Your task to perform on an android device: open chrome and create a bookmark for the current page Image 0: 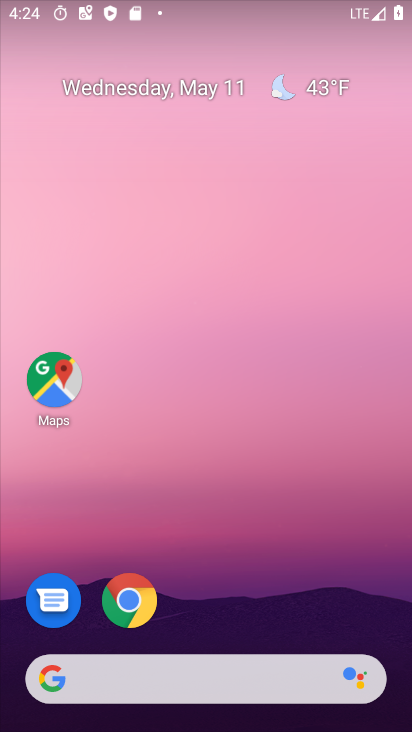
Step 0: click (134, 605)
Your task to perform on an android device: open chrome and create a bookmark for the current page Image 1: 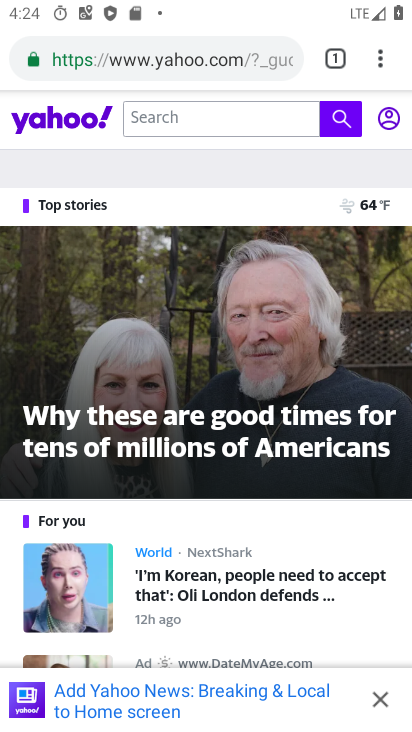
Step 1: click (383, 57)
Your task to perform on an android device: open chrome and create a bookmark for the current page Image 2: 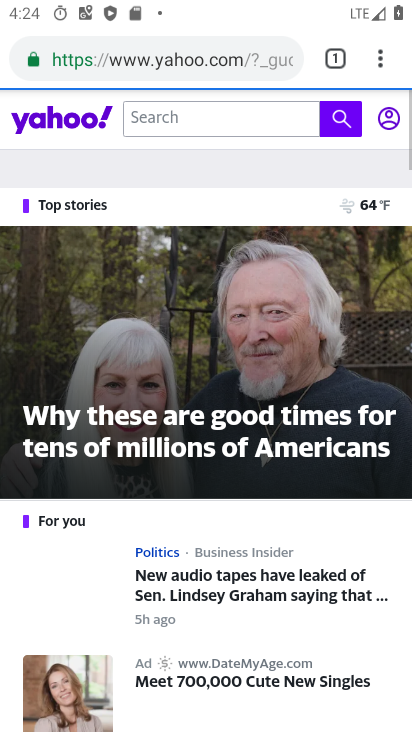
Step 2: click (383, 65)
Your task to perform on an android device: open chrome and create a bookmark for the current page Image 3: 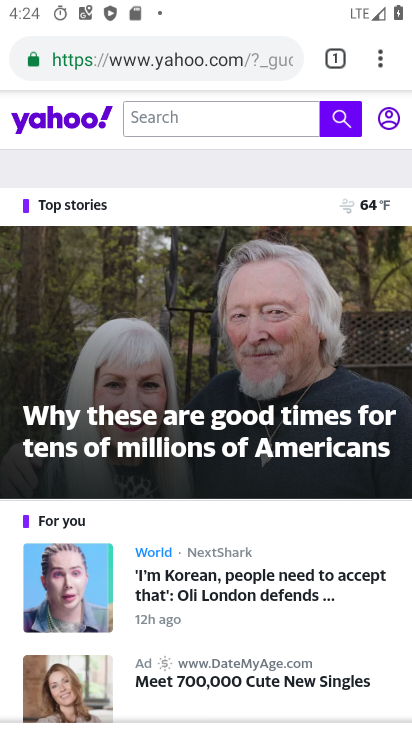
Step 3: click (379, 59)
Your task to perform on an android device: open chrome and create a bookmark for the current page Image 4: 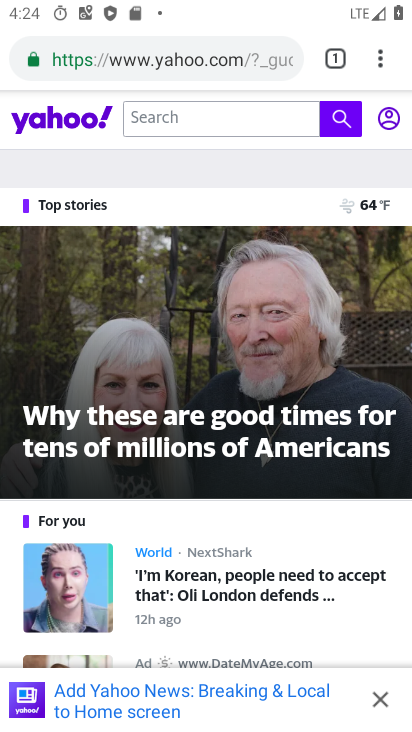
Step 4: click (382, 56)
Your task to perform on an android device: open chrome and create a bookmark for the current page Image 5: 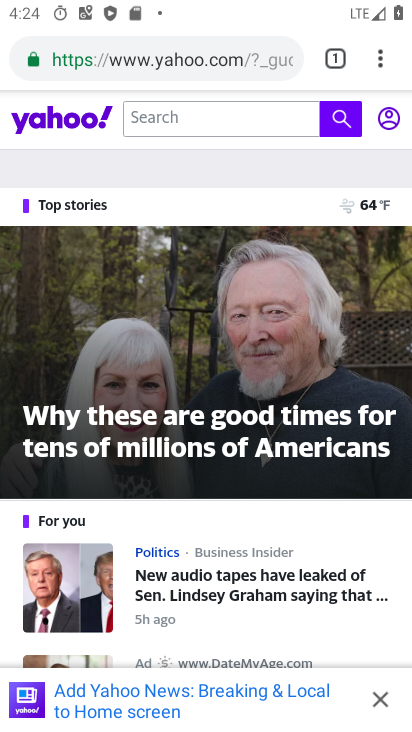
Step 5: click (383, 56)
Your task to perform on an android device: open chrome and create a bookmark for the current page Image 6: 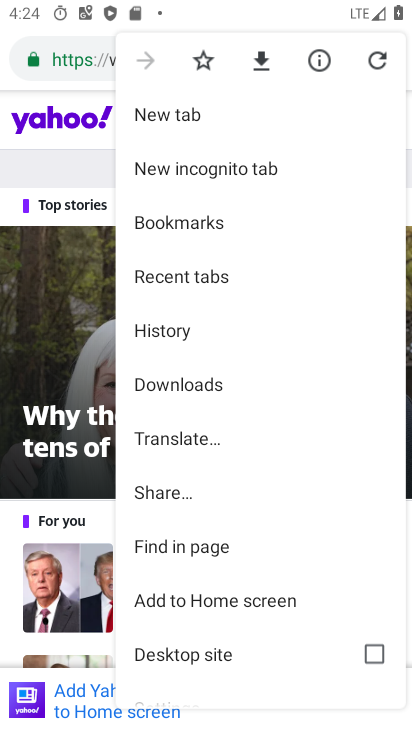
Step 6: click (207, 53)
Your task to perform on an android device: open chrome and create a bookmark for the current page Image 7: 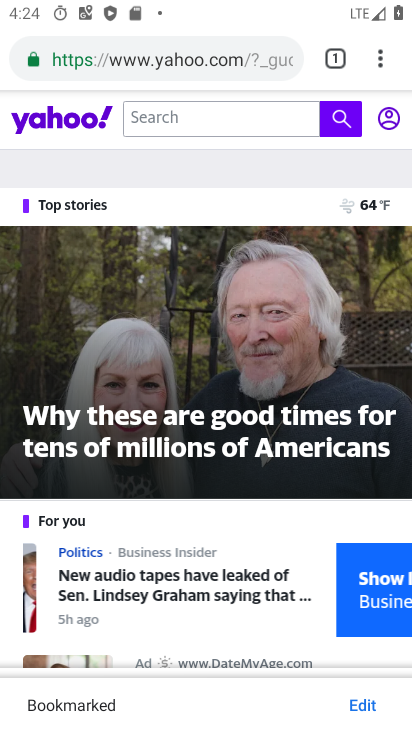
Step 7: task complete